Your task to perform on an android device: change notification settings in the gmail app Image 0: 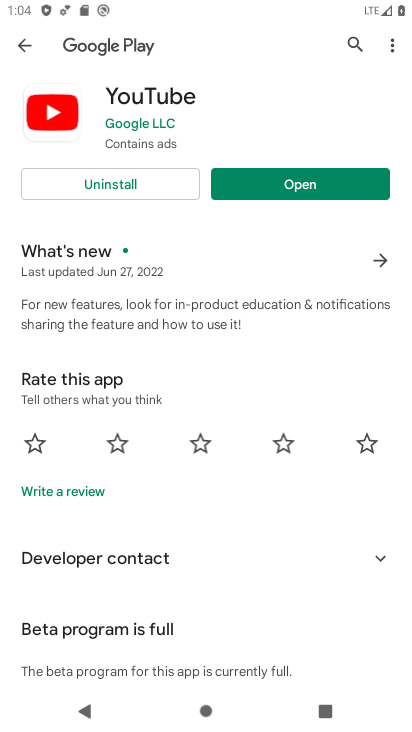
Step 0: press home button
Your task to perform on an android device: change notification settings in the gmail app Image 1: 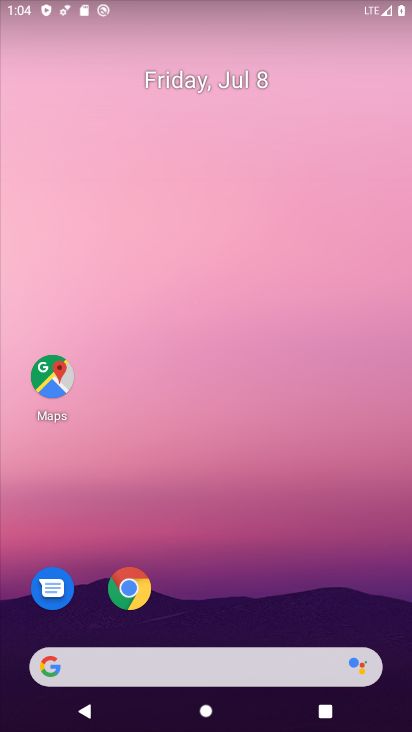
Step 1: drag from (213, 620) to (297, 0)
Your task to perform on an android device: change notification settings in the gmail app Image 2: 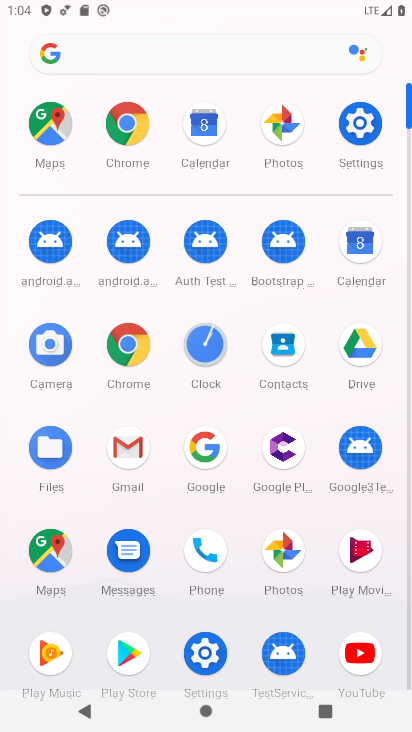
Step 2: click (133, 450)
Your task to perform on an android device: change notification settings in the gmail app Image 3: 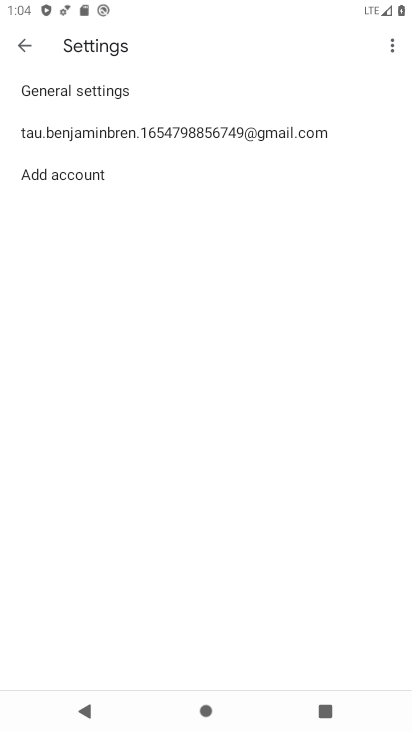
Step 3: click (65, 87)
Your task to perform on an android device: change notification settings in the gmail app Image 4: 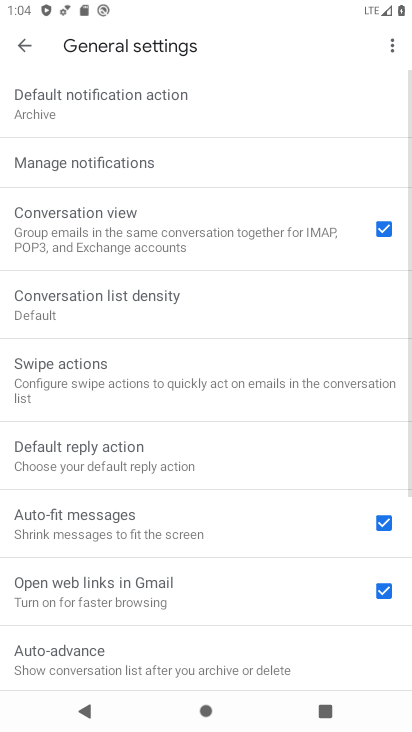
Step 4: click (125, 168)
Your task to perform on an android device: change notification settings in the gmail app Image 5: 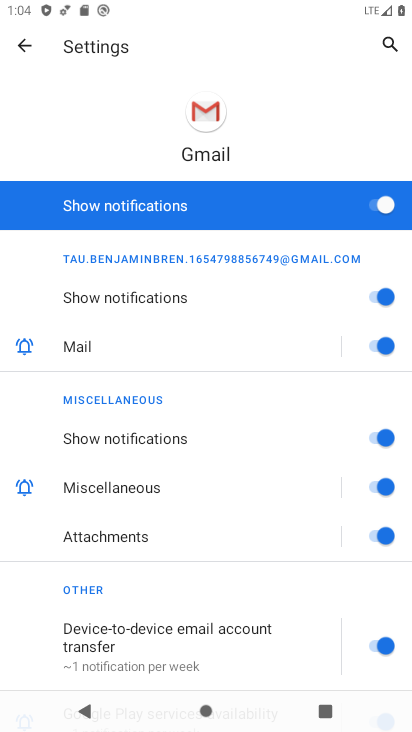
Step 5: click (372, 204)
Your task to perform on an android device: change notification settings in the gmail app Image 6: 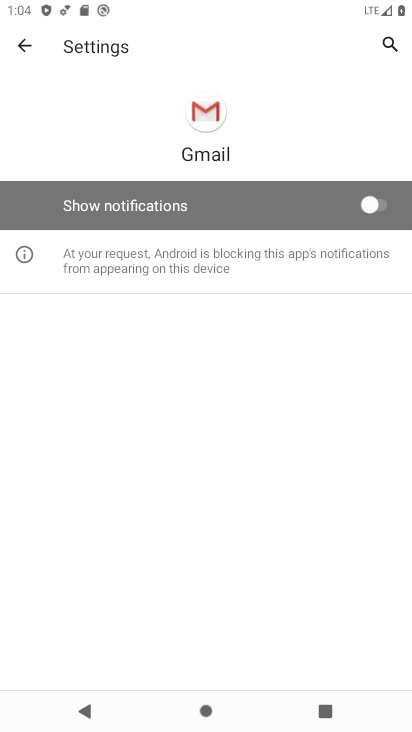
Step 6: task complete